Your task to perform on an android device: Show me popular videos on Youtube Image 0: 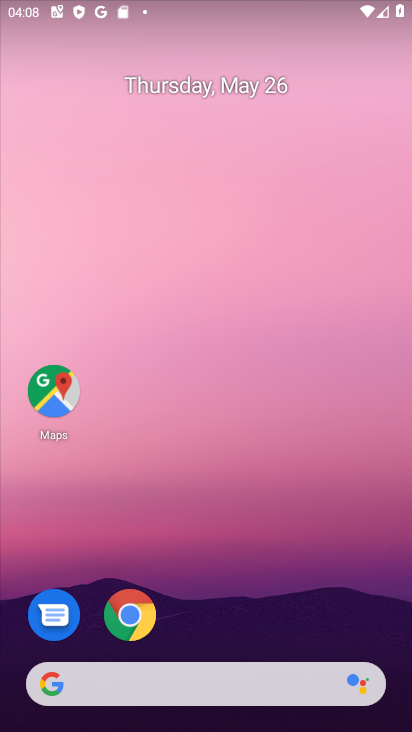
Step 0: drag from (212, 619) to (191, 74)
Your task to perform on an android device: Show me popular videos on Youtube Image 1: 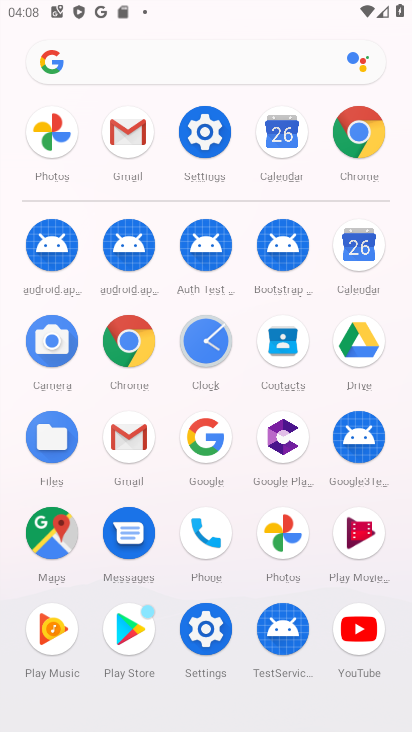
Step 1: click (359, 635)
Your task to perform on an android device: Show me popular videos on Youtube Image 2: 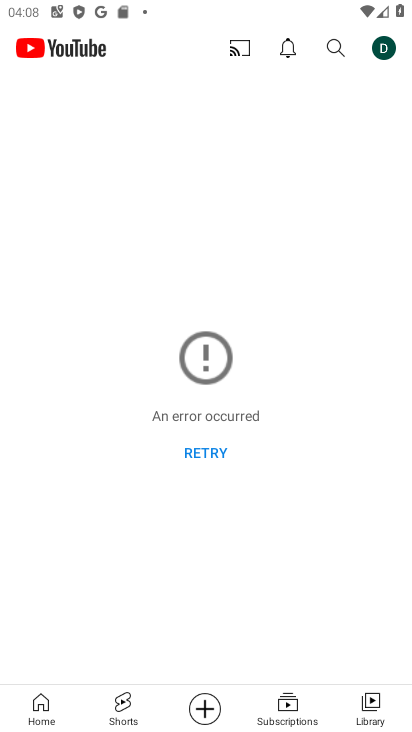
Step 2: click (367, 717)
Your task to perform on an android device: Show me popular videos on Youtube Image 3: 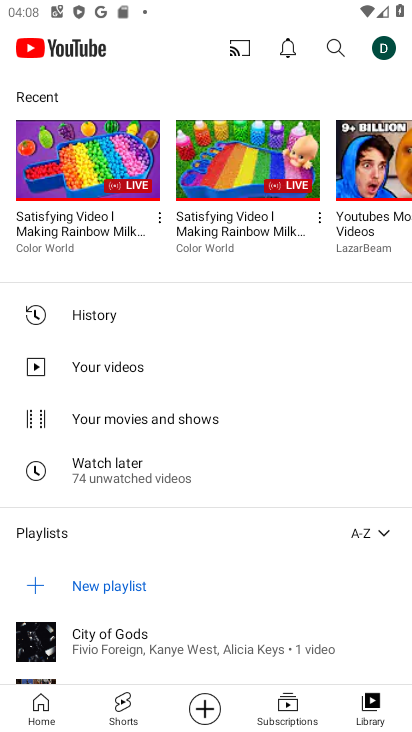
Step 3: click (50, 708)
Your task to perform on an android device: Show me popular videos on Youtube Image 4: 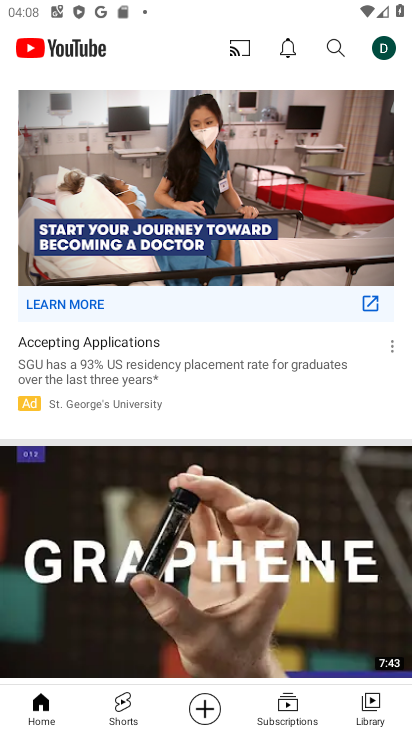
Step 4: task complete